Your task to perform on an android device: open a bookmark in the chrome app Image 0: 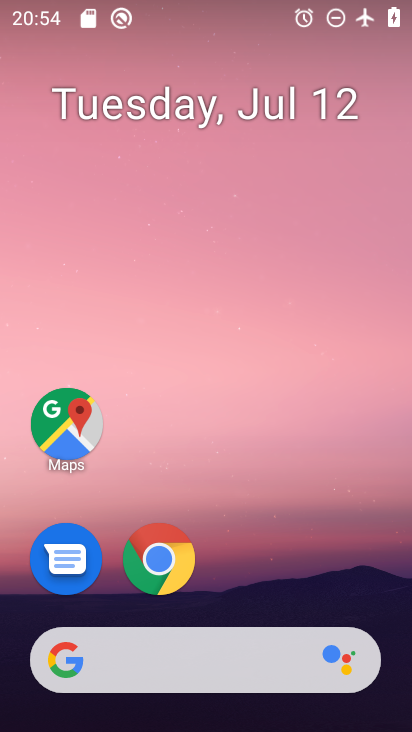
Step 0: drag from (358, 573) to (360, 134)
Your task to perform on an android device: open a bookmark in the chrome app Image 1: 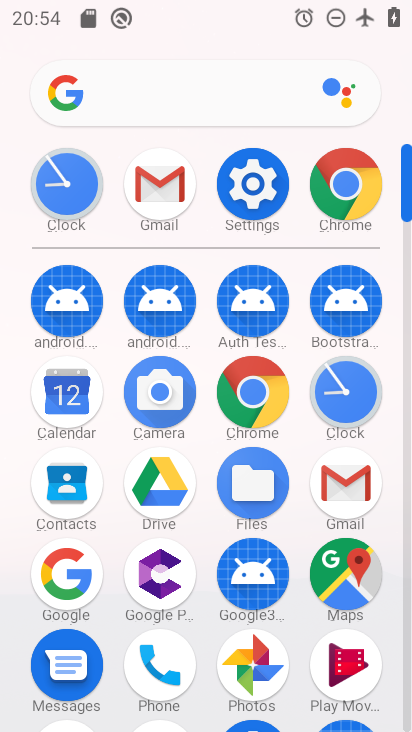
Step 1: click (262, 392)
Your task to perform on an android device: open a bookmark in the chrome app Image 2: 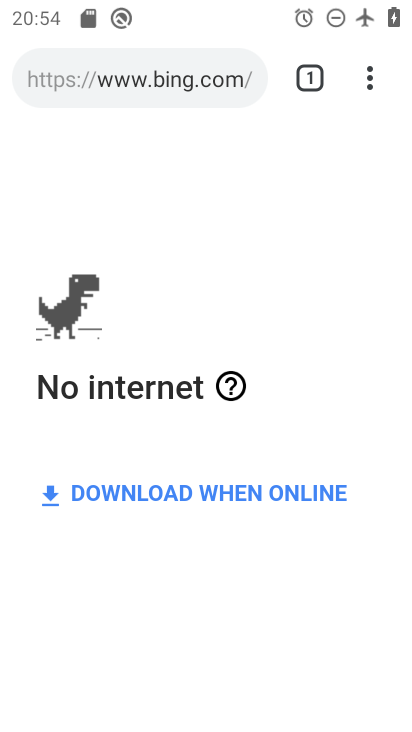
Step 2: click (367, 77)
Your task to perform on an android device: open a bookmark in the chrome app Image 3: 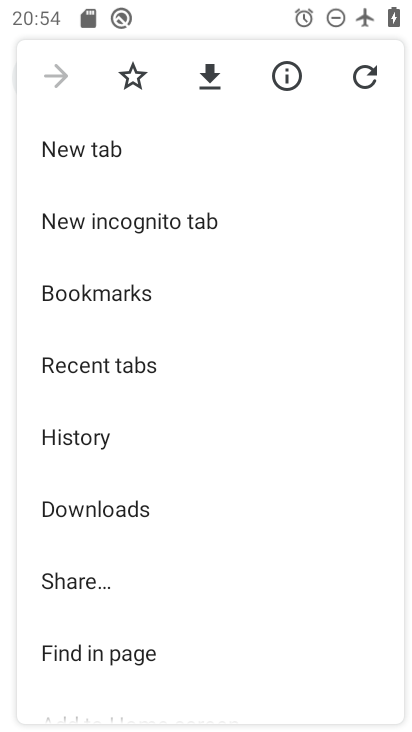
Step 3: drag from (328, 419) to (325, 276)
Your task to perform on an android device: open a bookmark in the chrome app Image 4: 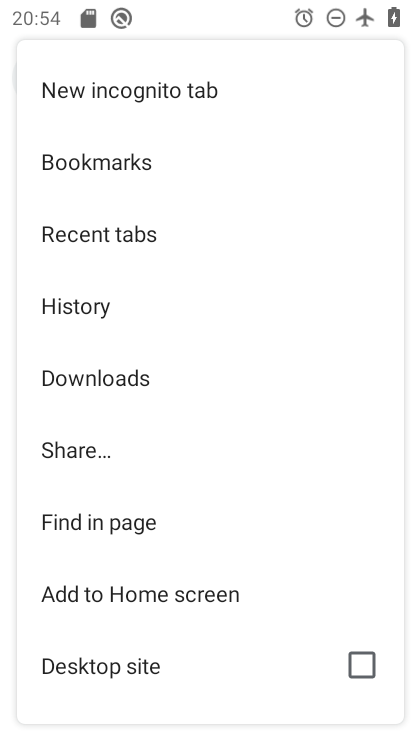
Step 4: drag from (333, 215) to (340, 340)
Your task to perform on an android device: open a bookmark in the chrome app Image 5: 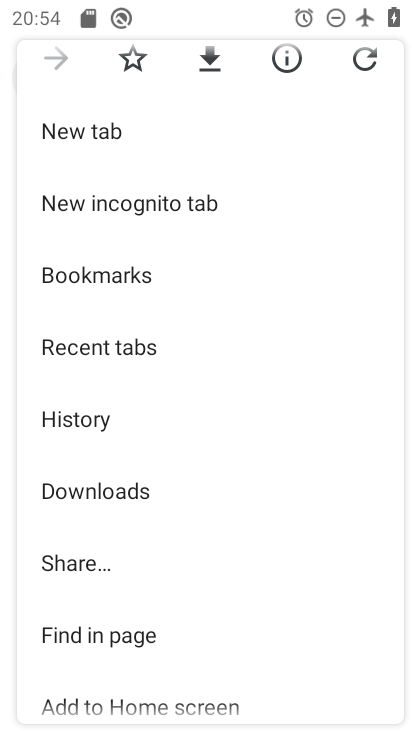
Step 5: drag from (309, 225) to (301, 353)
Your task to perform on an android device: open a bookmark in the chrome app Image 6: 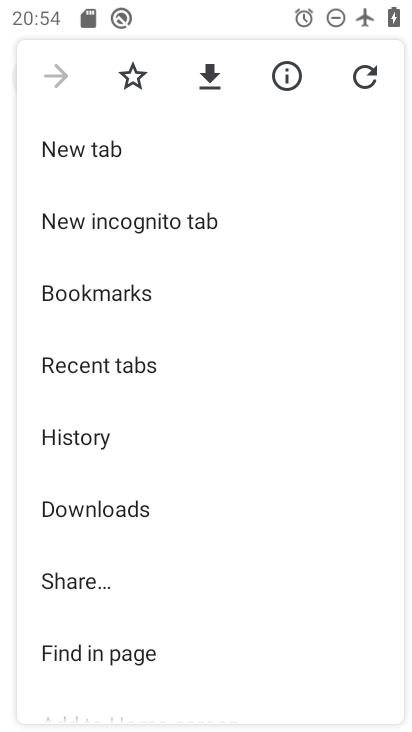
Step 6: click (170, 306)
Your task to perform on an android device: open a bookmark in the chrome app Image 7: 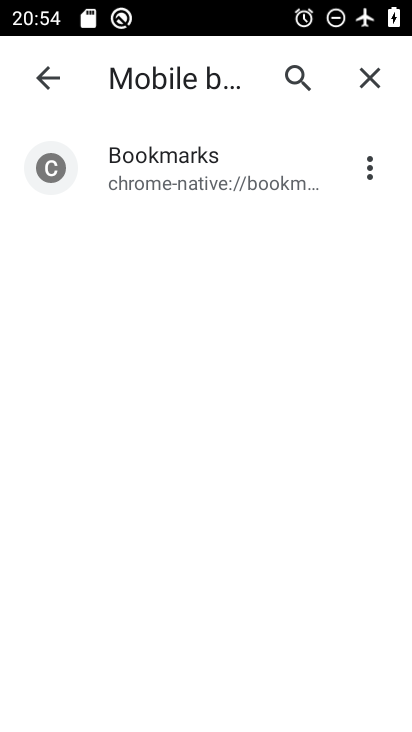
Step 7: click (202, 165)
Your task to perform on an android device: open a bookmark in the chrome app Image 8: 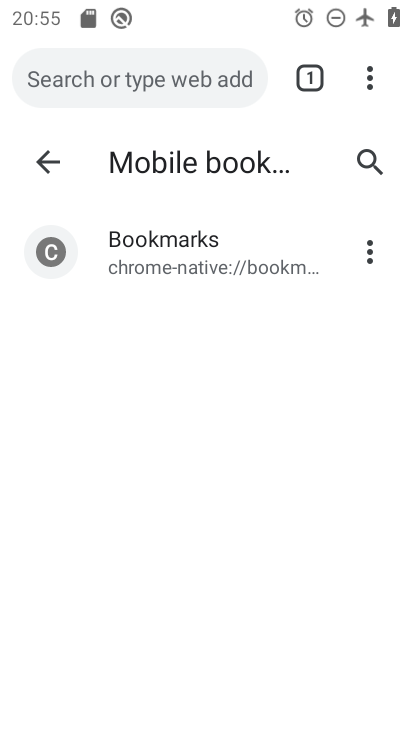
Step 8: task complete